Your task to perform on an android device: Open ESPN.com Image 0: 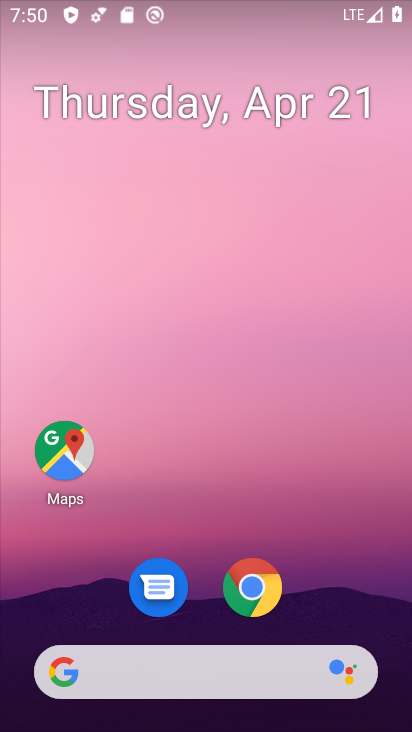
Step 0: click (252, 582)
Your task to perform on an android device: Open ESPN.com Image 1: 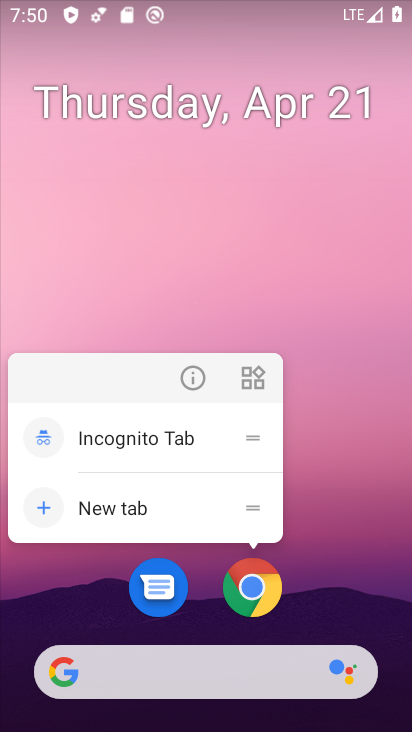
Step 1: click (254, 582)
Your task to perform on an android device: Open ESPN.com Image 2: 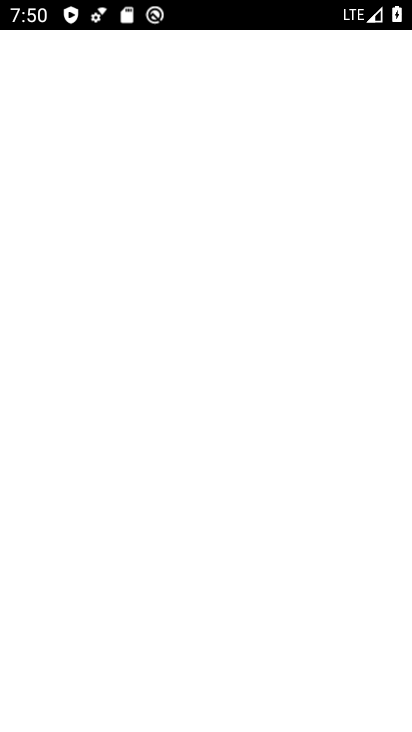
Step 2: click (256, 573)
Your task to perform on an android device: Open ESPN.com Image 3: 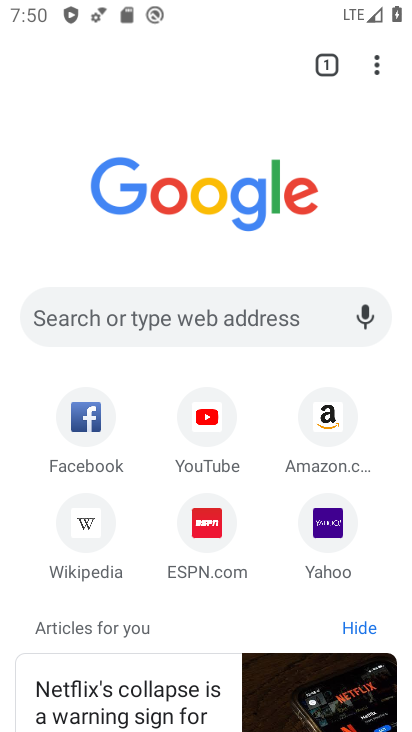
Step 3: click (94, 319)
Your task to perform on an android device: Open ESPN.com Image 4: 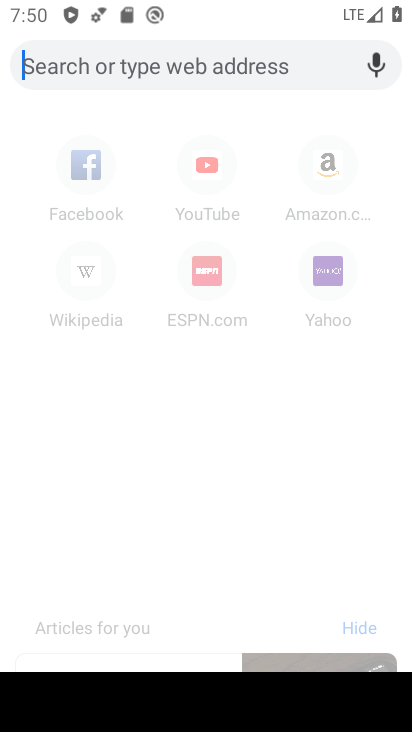
Step 4: type "ESPN.com"
Your task to perform on an android device: Open ESPN.com Image 5: 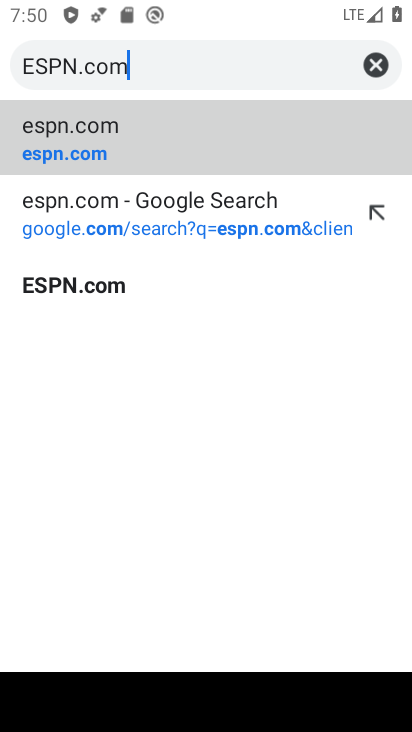
Step 5: click (49, 291)
Your task to perform on an android device: Open ESPN.com Image 6: 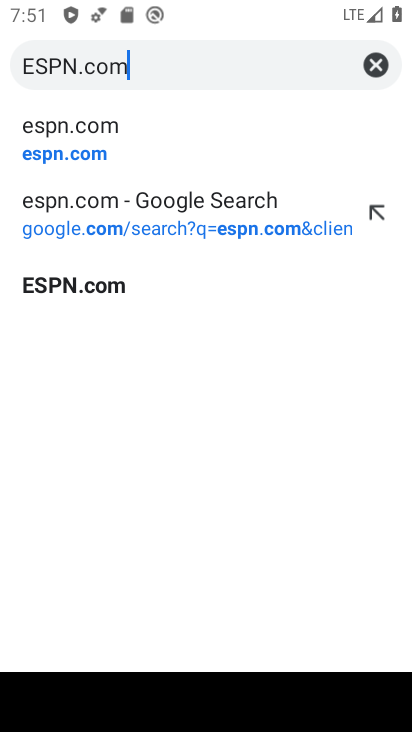
Step 6: click (57, 273)
Your task to perform on an android device: Open ESPN.com Image 7: 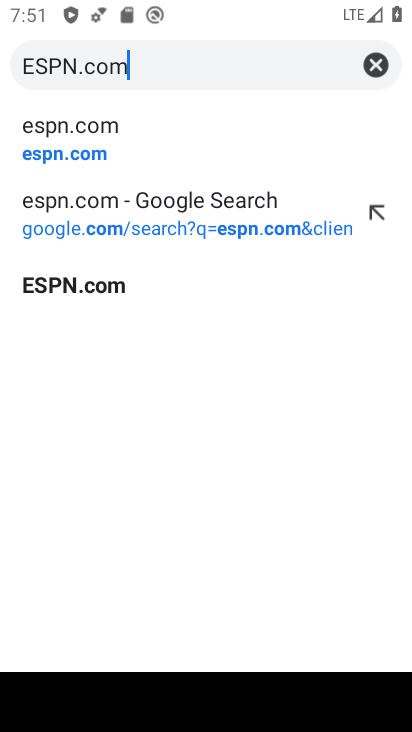
Step 7: click (55, 143)
Your task to perform on an android device: Open ESPN.com Image 8: 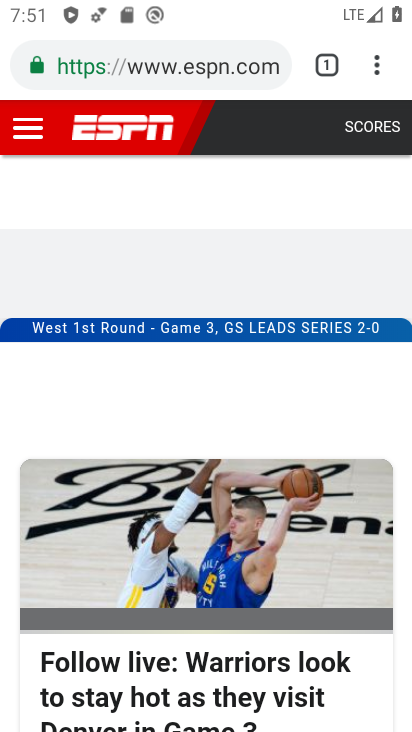
Step 8: task complete